Your task to perform on an android device: open app "TextNow: Call + Text Unlimited" (install if not already installed) Image 0: 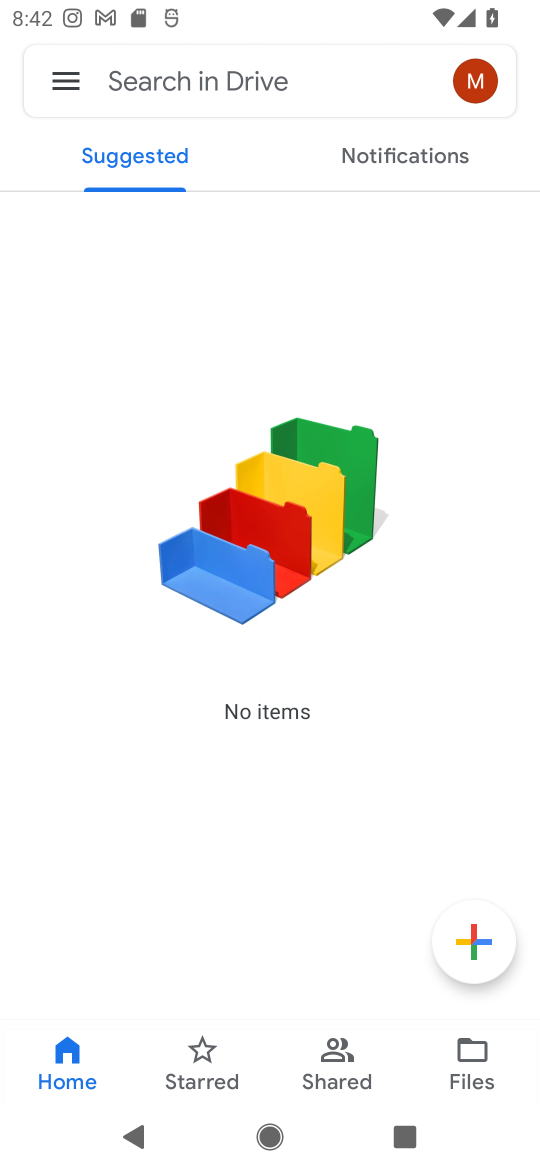
Step 0: press home button
Your task to perform on an android device: open app "TextNow: Call + Text Unlimited" (install if not already installed) Image 1: 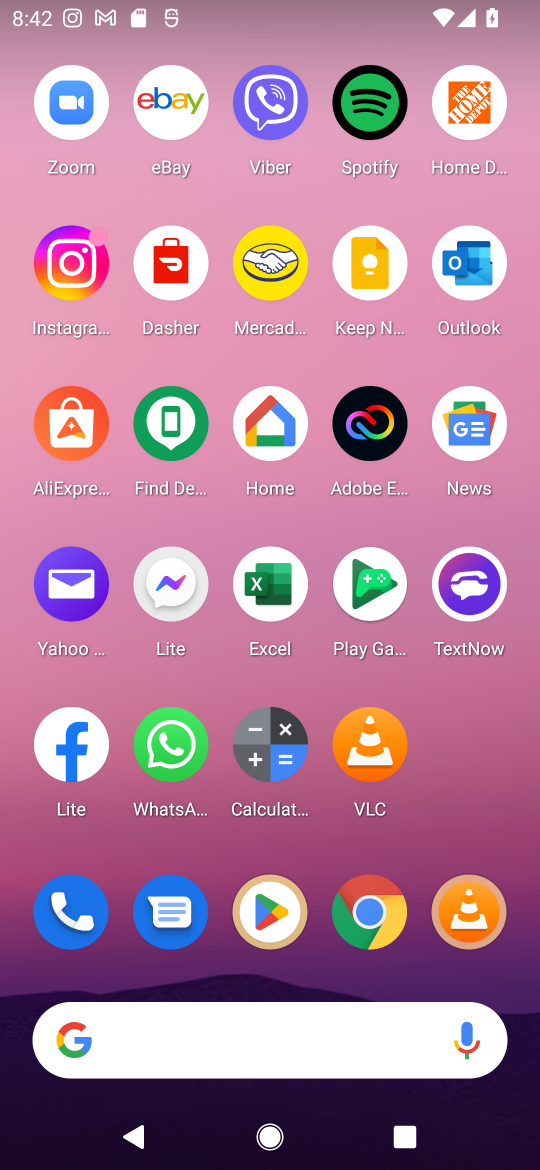
Step 1: click (277, 911)
Your task to perform on an android device: open app "TextNow: Call + Text Unlimited" (install if not already installed) Image 2: 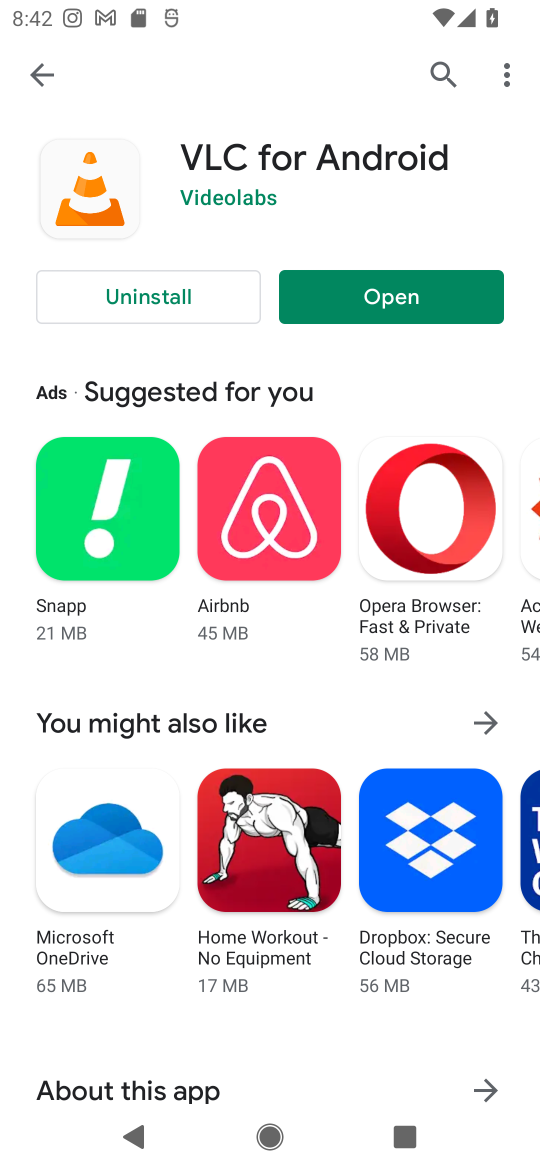
Step 2: click (434, 68)
Your task to perform on an android device: open app "TextNow: Call + Text Unlimited" (install if not already installed) Image 3: 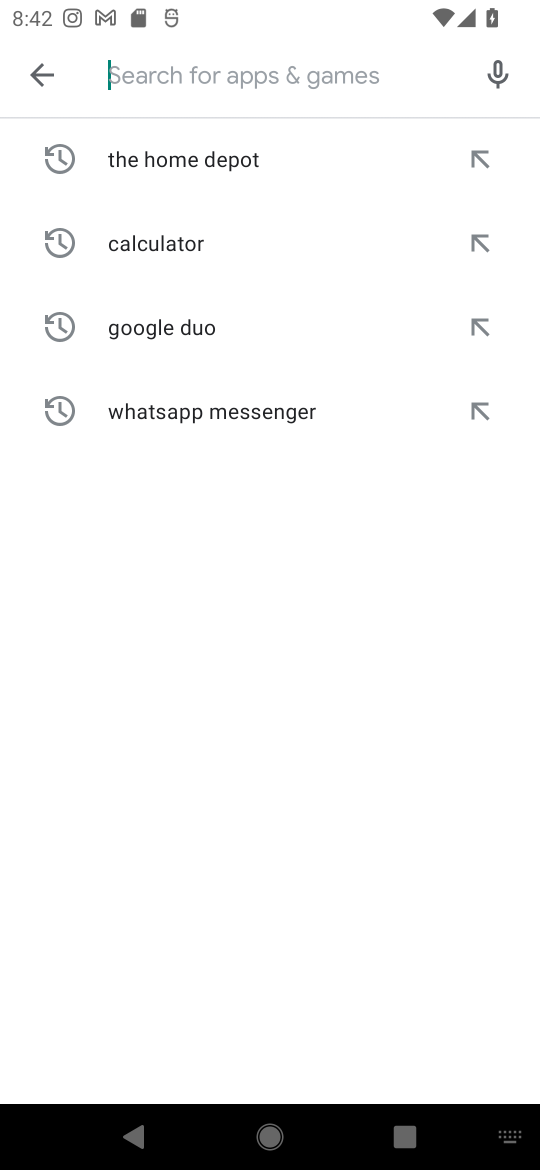
Step 3: type "TextNow: Call + Text Unlimited"
Your task to perform on an android device: open app "TextNow: Call + Text Unlimited" (install if not already installed) Image 4: 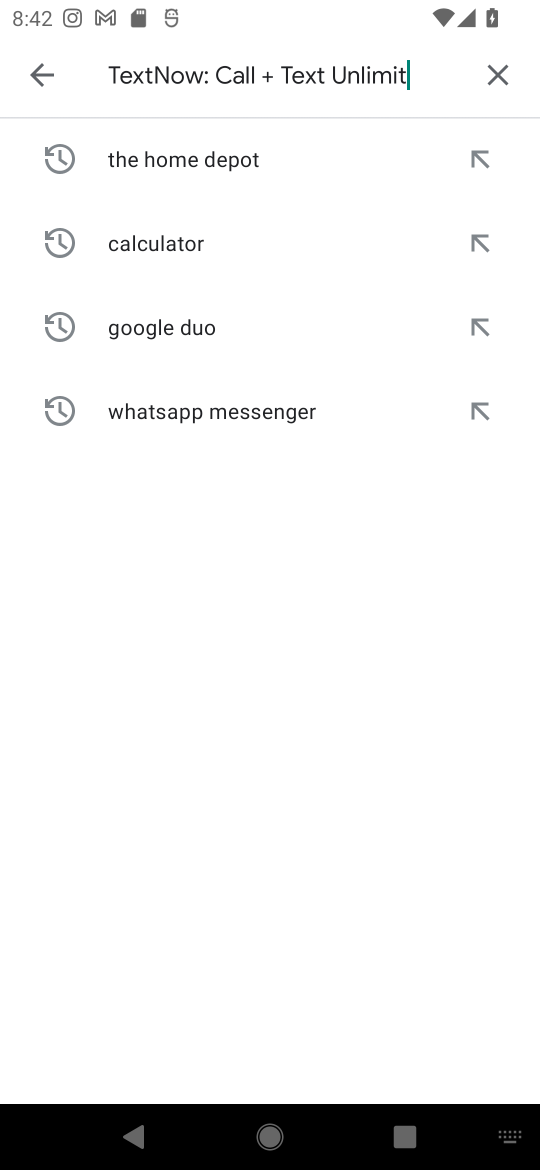
Step 4: type ""
Your task to perform on an android device: open app "TextNow: Call + Text Unlimited" (install if not already installed) Image 5: 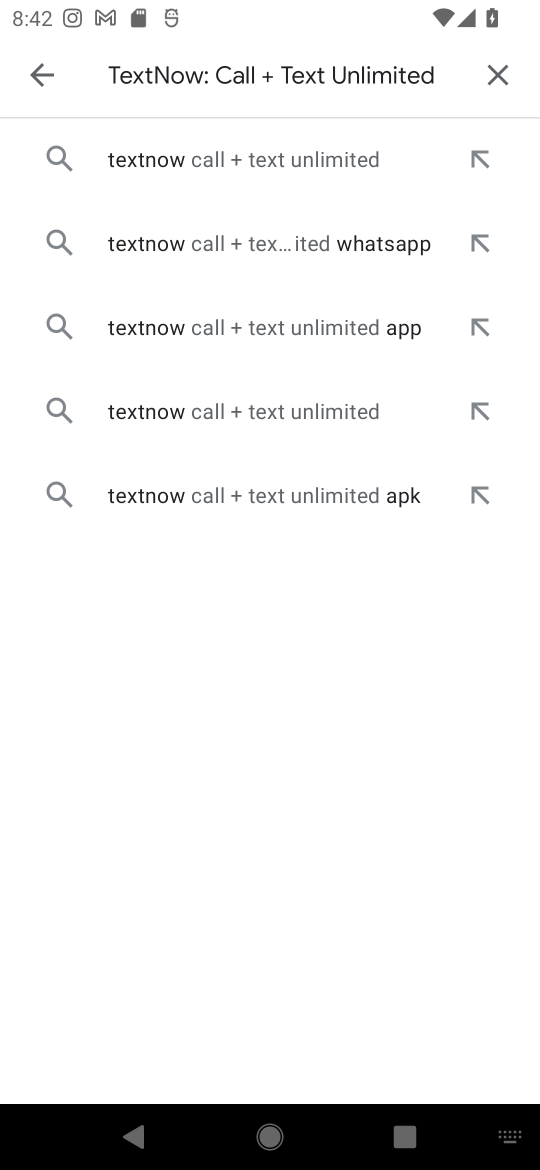
Step 5: click (315, 148)
Your task to perform on an android device: open app "TextNow: Call + Text Unlimited" (install if not already installed) Image 6: 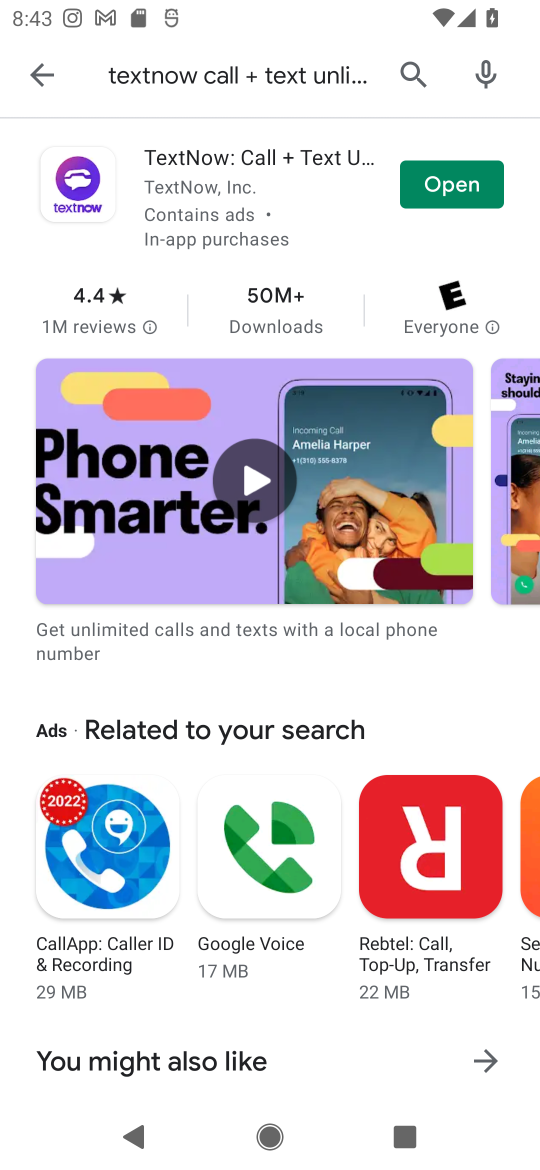
Step 6: click (467, 181)
Your task to perform on an android device: open app "TextNow: Call + Text Unlimited" (install if not already installed) Image 7: 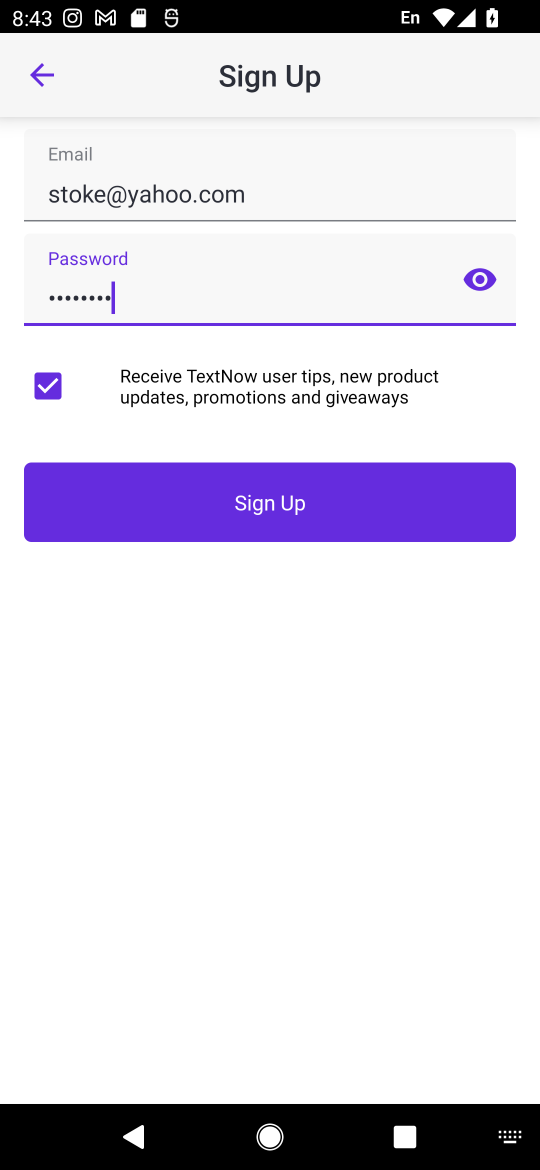
Step 7: task complete